Your task to perform on an android device: Add "razer huntsman" to the cart on target.com Image 0: 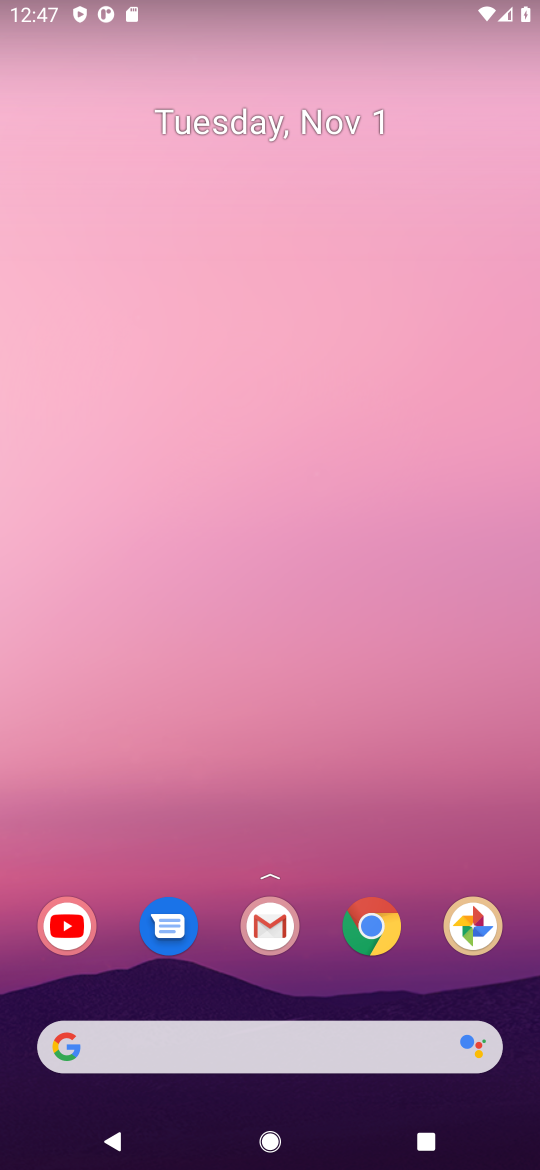
Step 0: click (357, 928)
Your task to perform on an android device: Add "razer huntsman" to the cart on target.com Image 1: 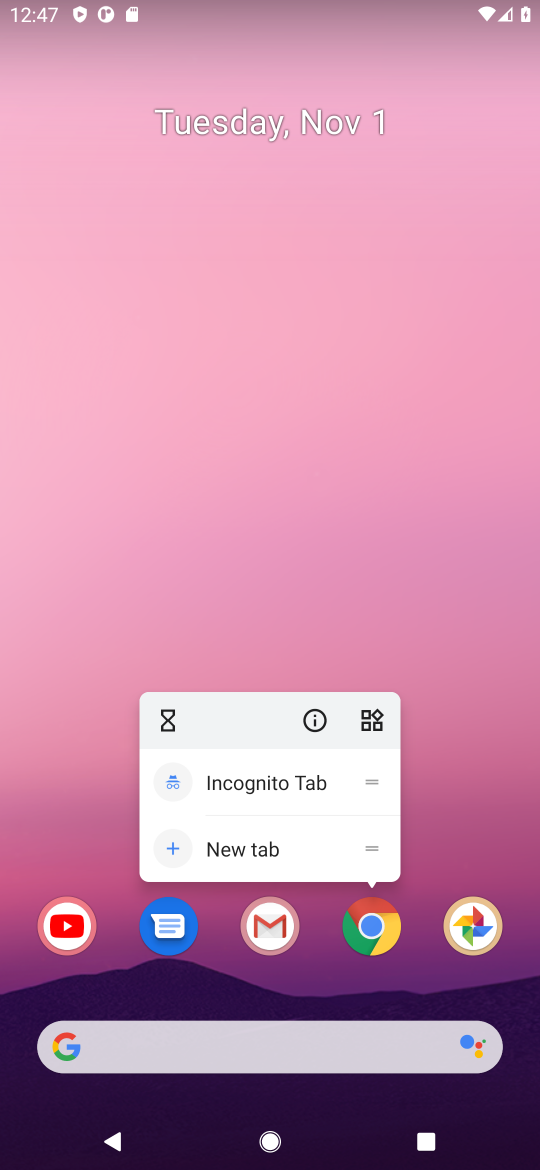
Step 1: click (374, 929)
Your task to perform on an android device: Add "razer huntsman" to the cart on target.com Image 2: 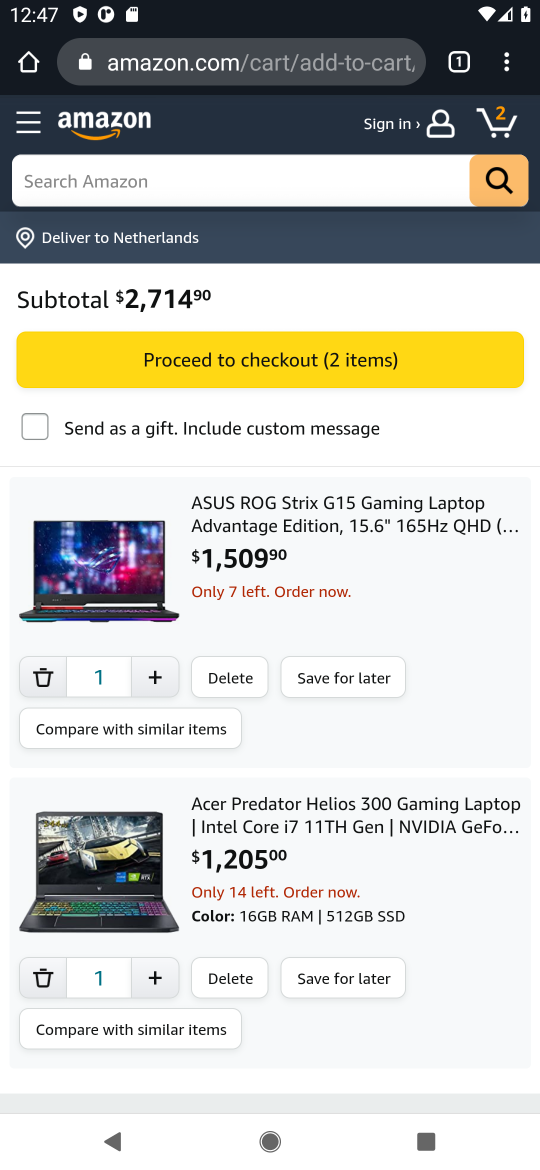
Step 2: click (188, 60)
Your task to perform on an android device: Add "razer huntsman" to the cart on target.com Image 3: 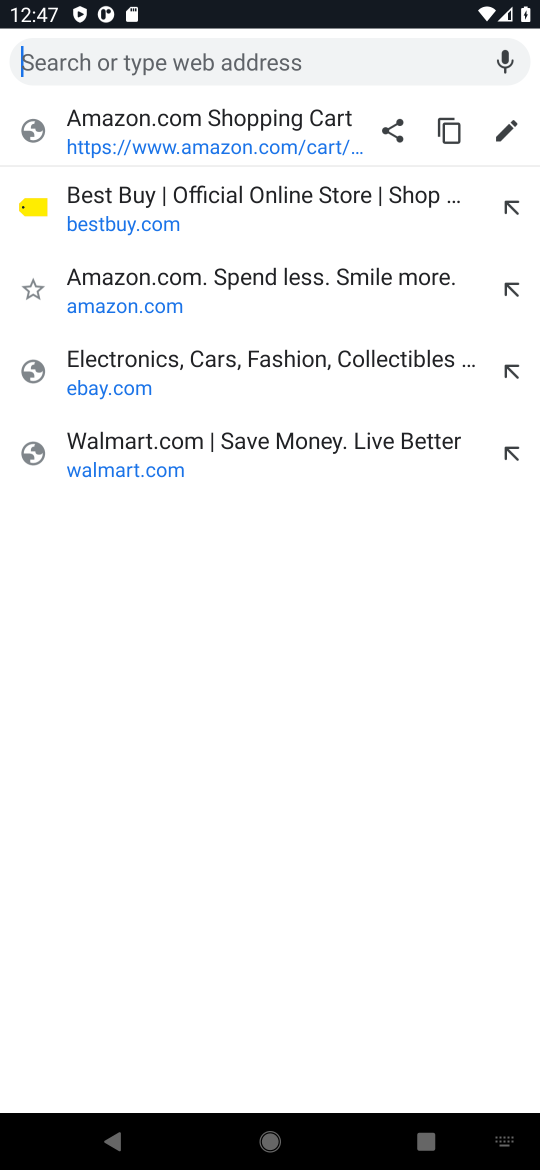
Step 3: type "target.com"
Your task to perform on an android device: Add "razer huntsman" to the cart on target.com Image 4: 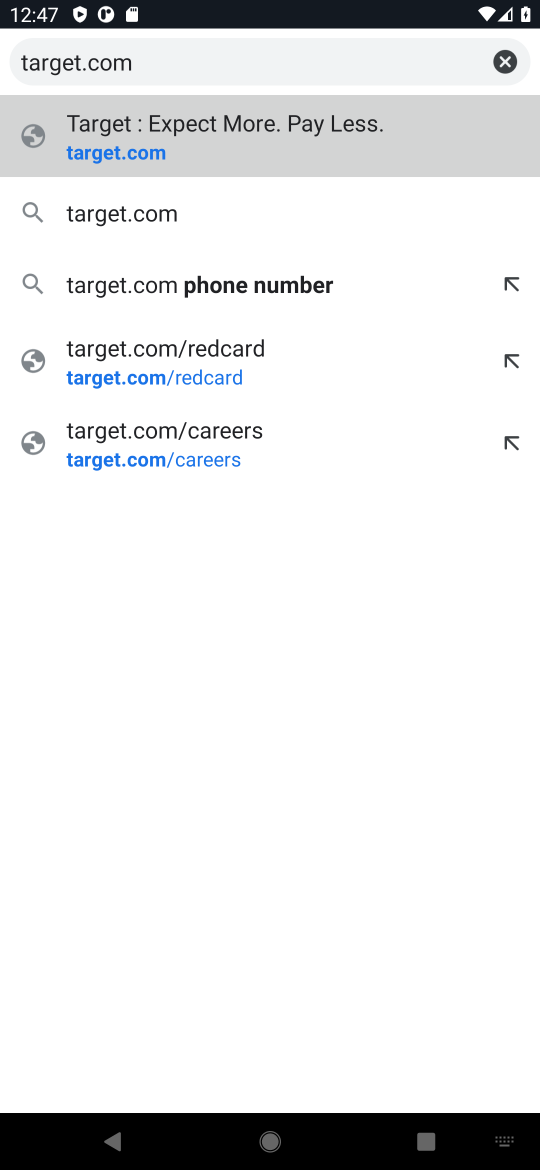
Step 4: type ""
Your task to perform on an android device: Add "razer huntsman" to the cart on target.com Image 5: 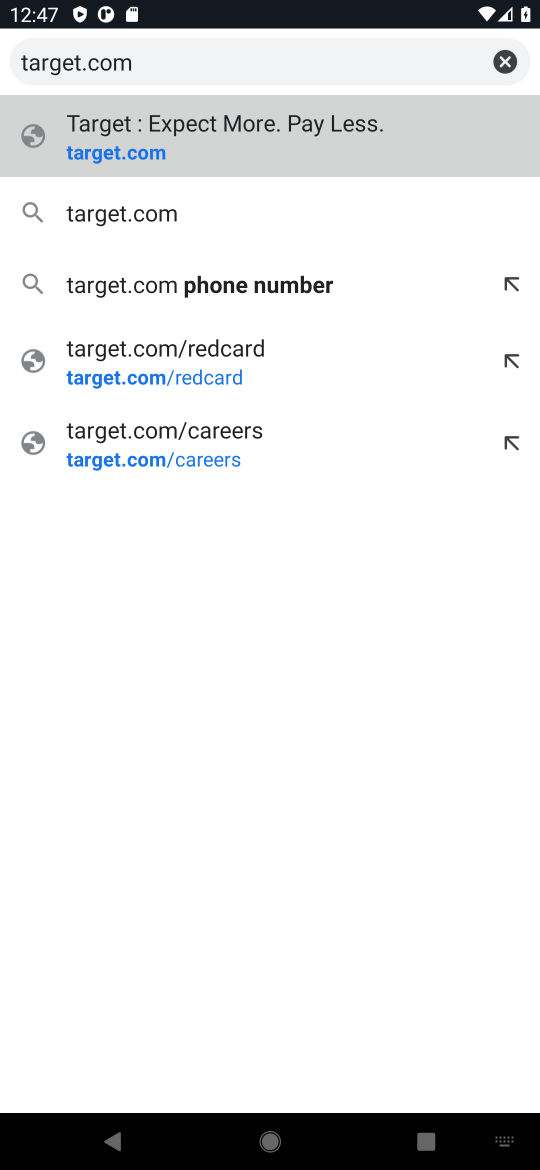
Step 5: click (316, 152)
Your task to perform on an android device: Add "razer huntsman" to the cart on target.com Image 6: 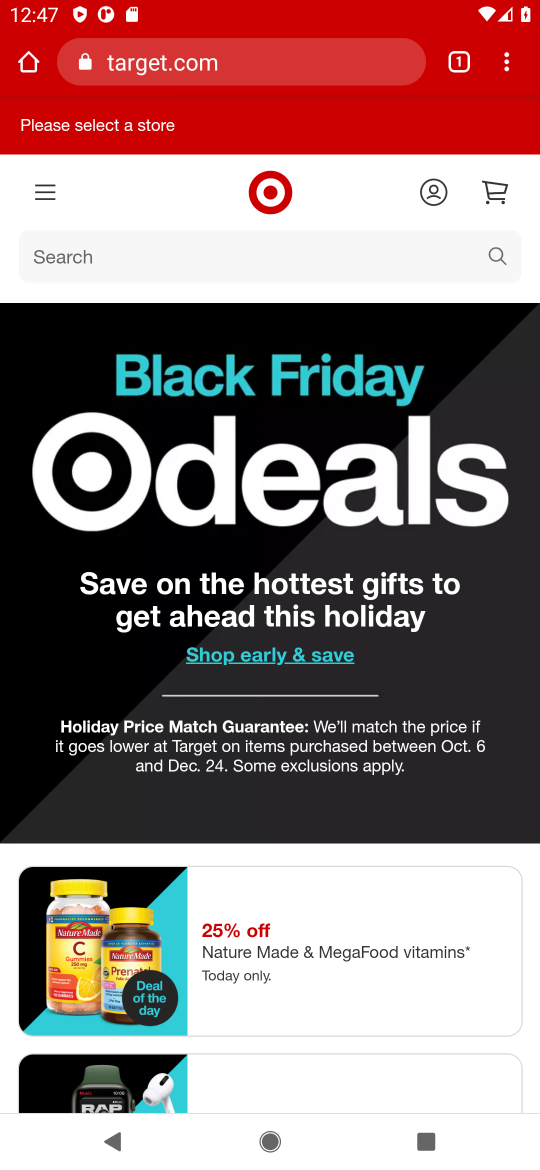
Step 6: click (328, 266)
Your task to perform on an android device: Add "razer huntsman" to the cart on target.com Image 7: 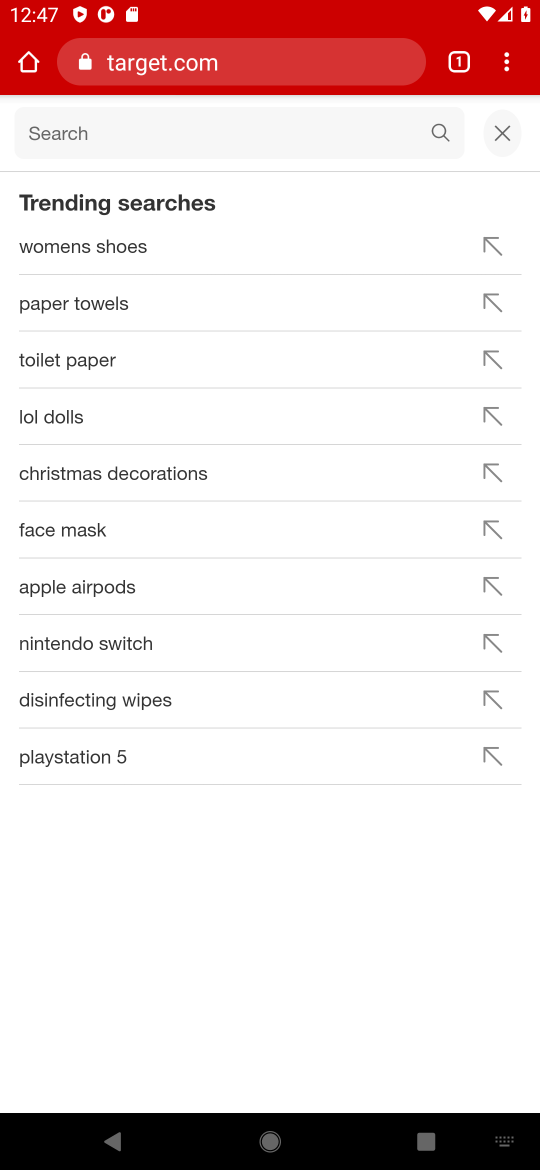
Step 7: type "razer huntsman"
Your task to perform on an android device: Add "razer huntsman" to the cart on target.com Image 8: 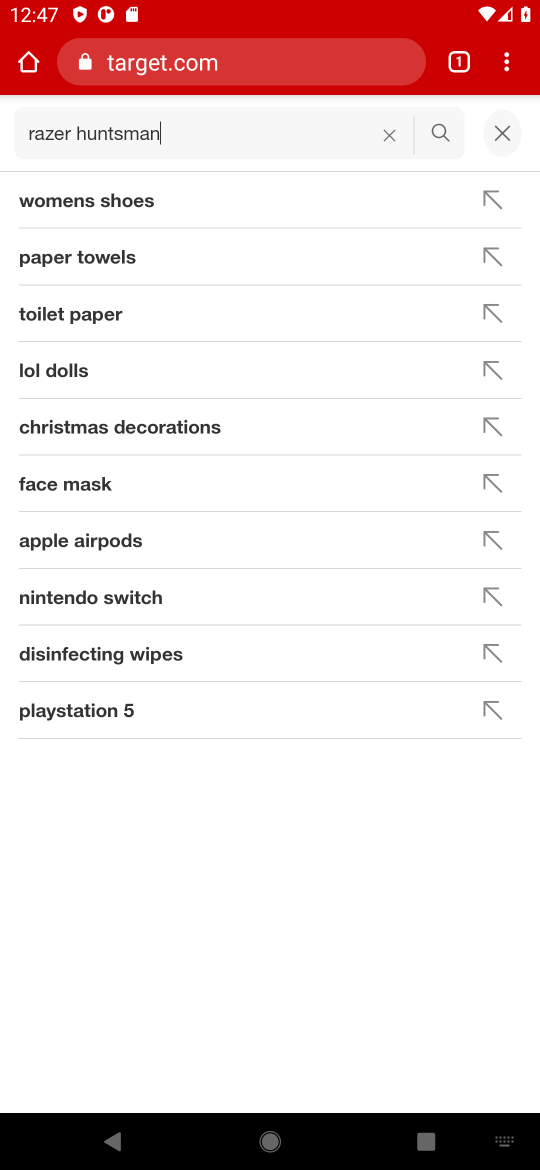
Step 8: type ""
Your task to perform on an android device: Add "razer huntsman" to the cart on target.com Image 9: 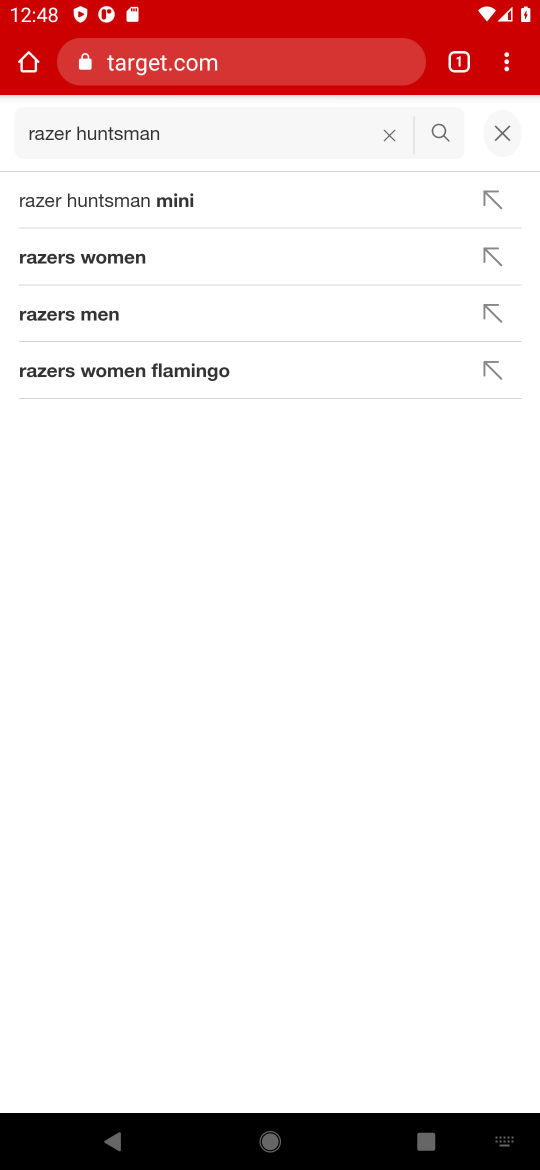
Step 9: press enter
Your task to perform on an android device: Add "razer huntsman" to the cart on target.com Image 10: 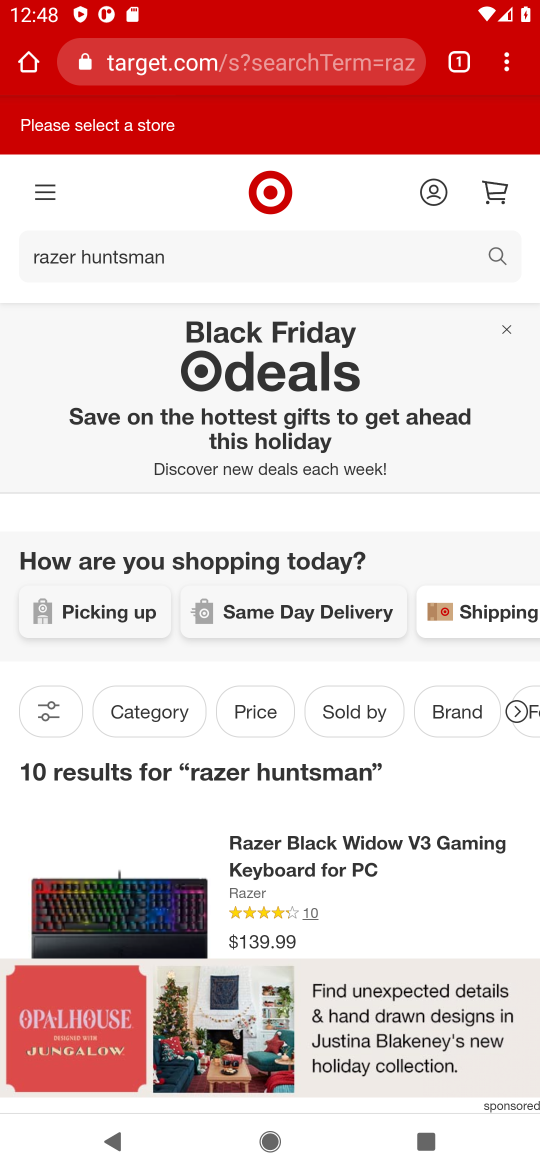
Step 10: drag from (332, 851) to (404, 405)
Your task to perform on an android device: Add "razer huntsman" to the cart on target.com Image 11: 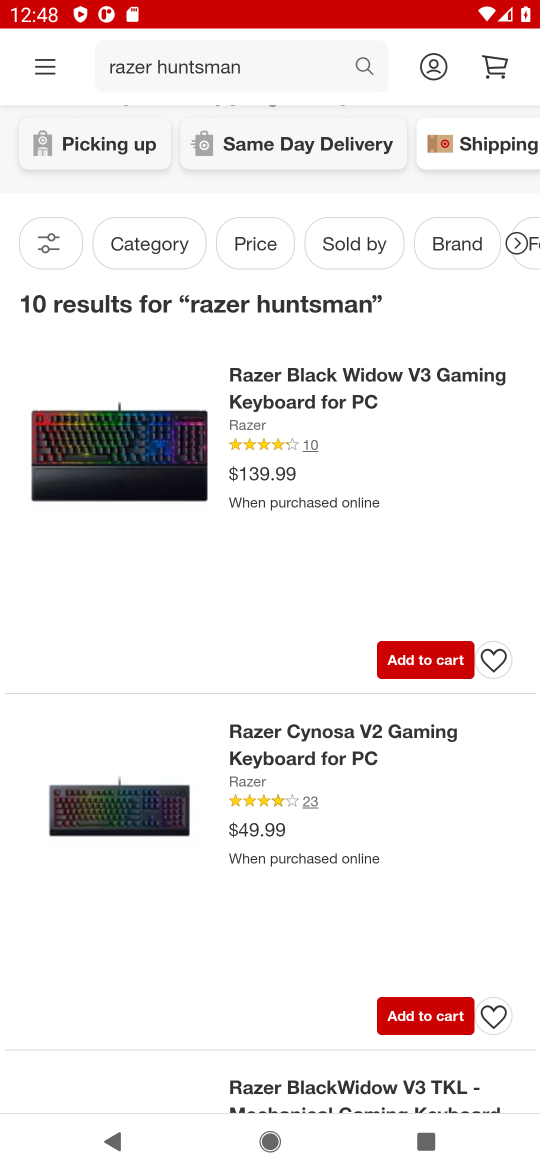
Step 11: drag from (318, 406) to (379, 241)
Your task to perform on an android device: Add "razer huntsman" to the cart on target.com Image 12: 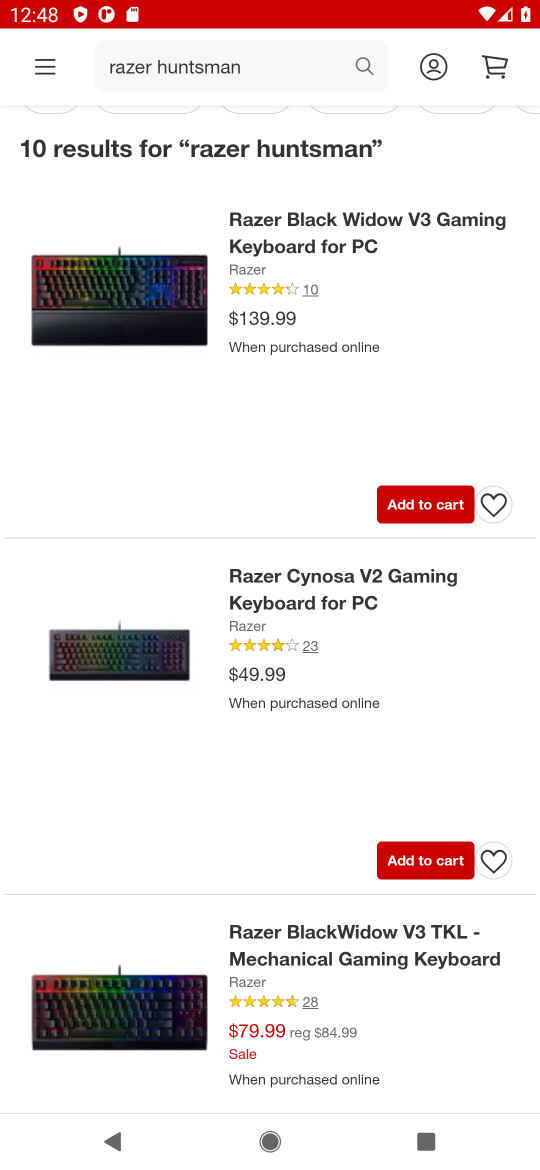
Step 12: drag from (248, 966) to (349, 420)
Your task to perform on an android device: Add "razer huntsman" to the cart on target.com Image 13: 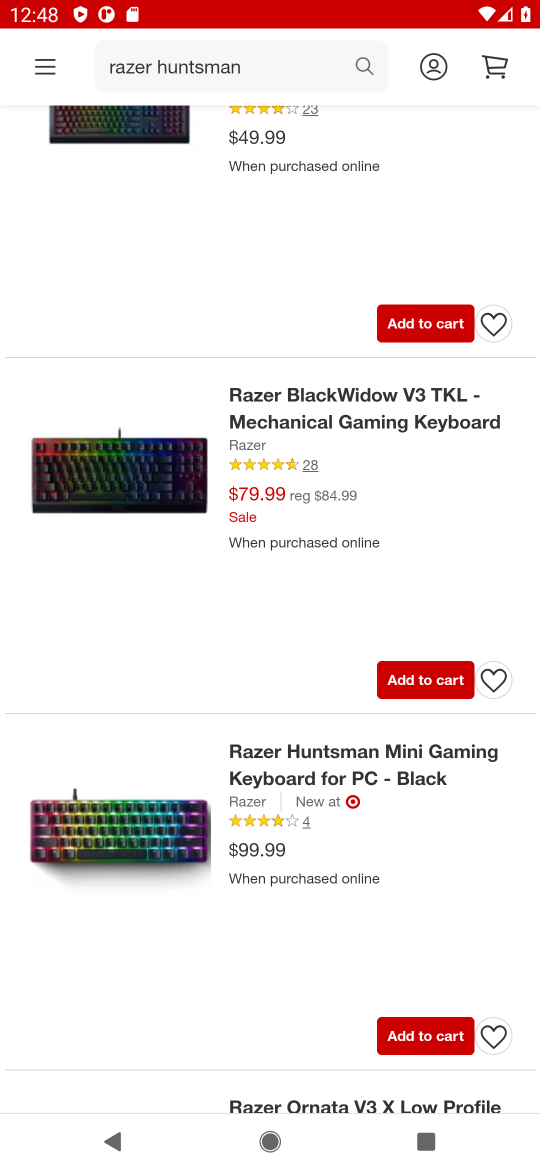
Step 13: click (305, 755)
Your task to perform on an android device: Add "razer huntsman" to the cart on target.com Image 14: 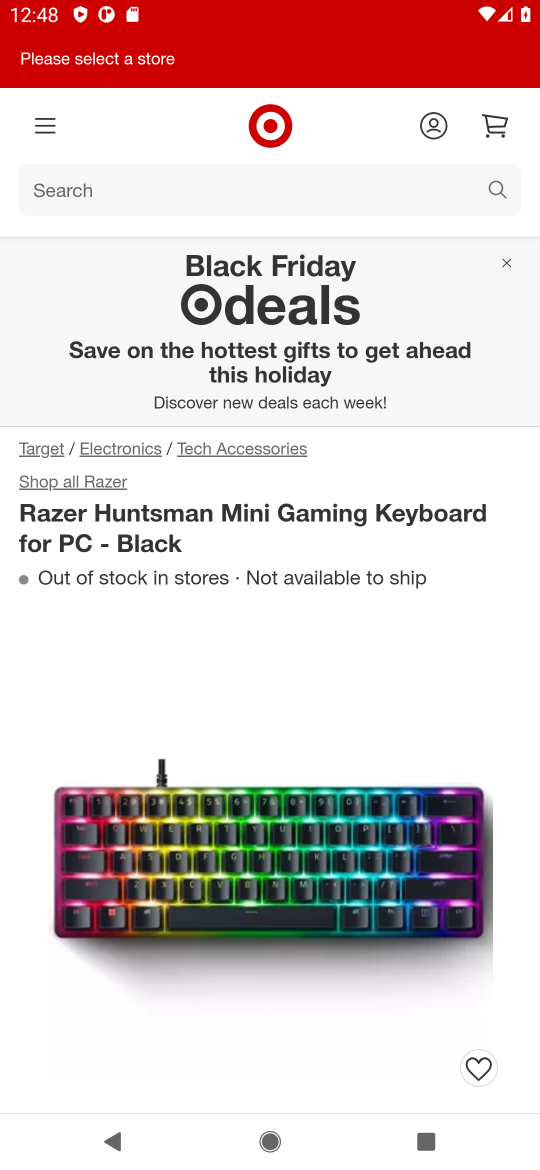
Step 14: drag from (326, 860) to (383, 494)
Your task to perform on an android device: Add "razer huntsman" to the cart on target.com Image 15: 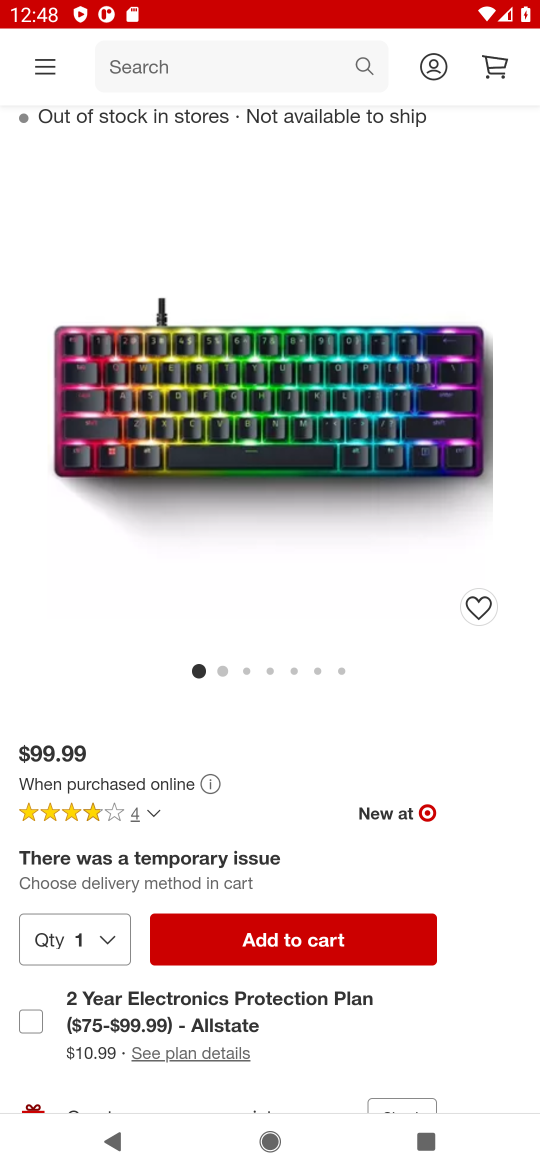
Step 15: click (292, 927)
Your task to perform on an android device: Add "razer huntsman" to the cart on target.com Image 16: 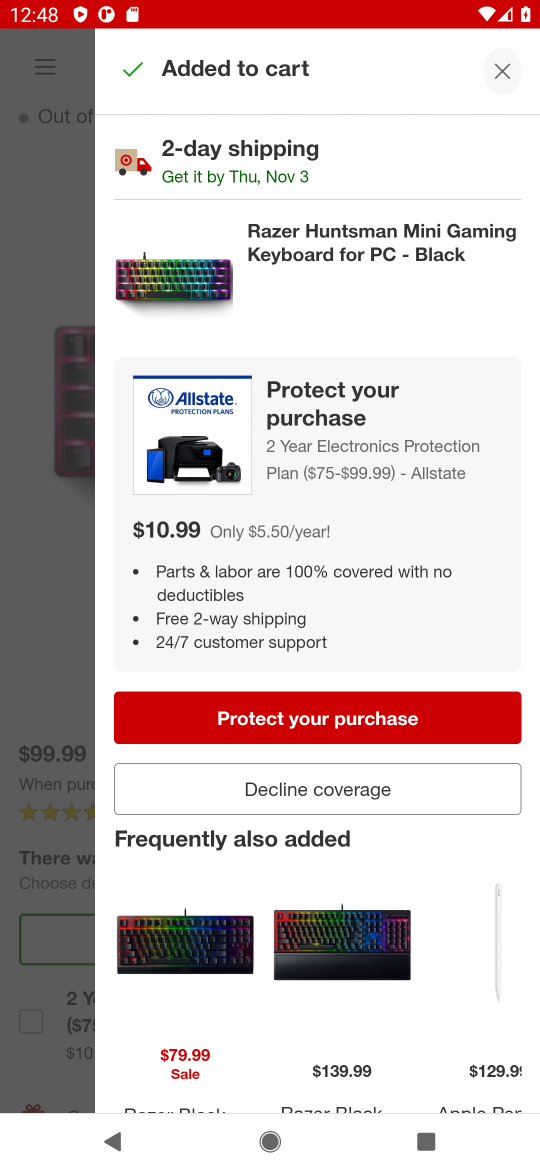
Step 16: click (257, 783)
Your task to perform on an android device: Add "razer huntsman" to the cart on target.com Image 17: 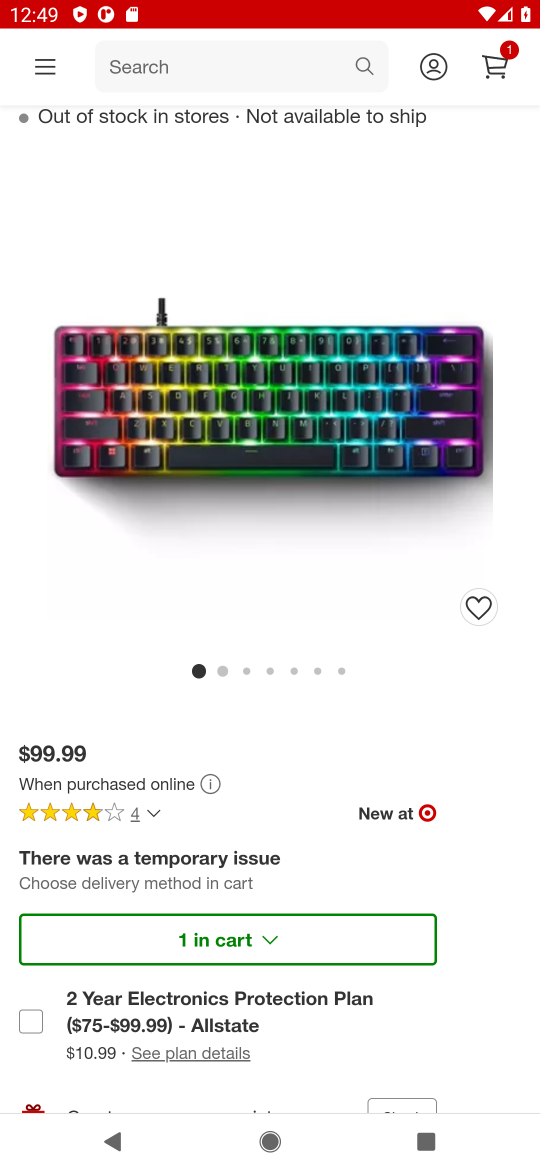
Step 17: task complete